Your task to perform on an android device: add a label to a message in the gmail app Image 0: 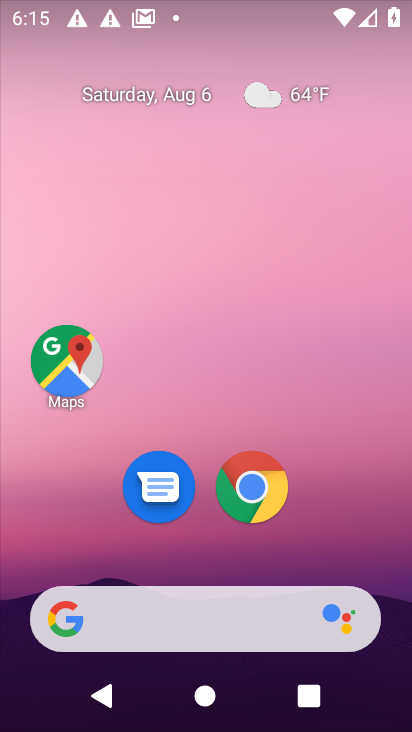
Step 0: drag from (210, 439) to (249, 0)
Your task to perform on an android device: add a label to a message in the gmail app Image 1: 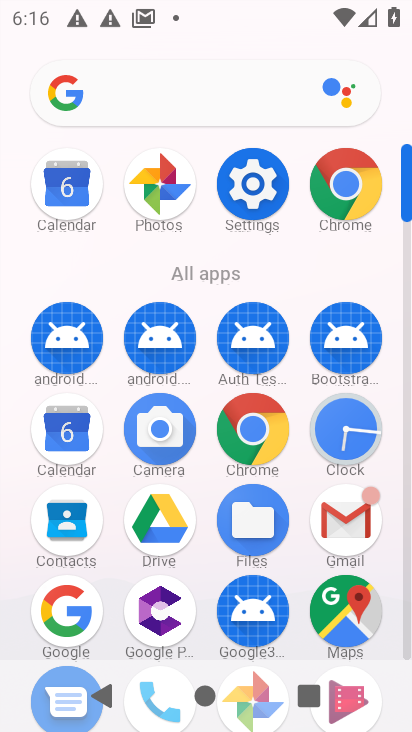
Step 1: click (343, 513)
Your task to perform on an android device: add a label to a message in the gmail app Image 2: 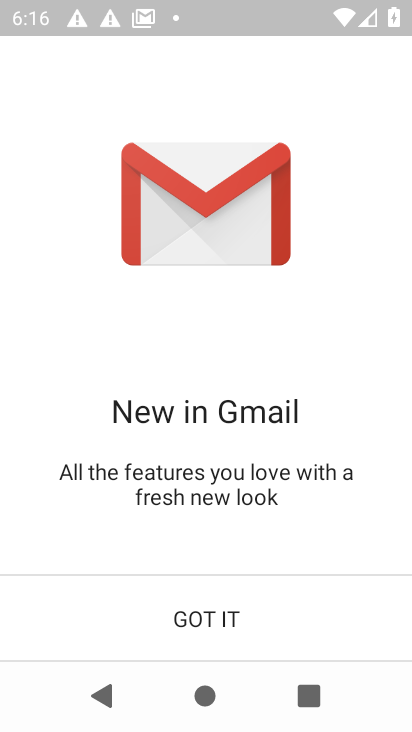
Step 2: click (156, 620)
Your task to perform on an android device: add a label to a message in the gmail app Image 3: 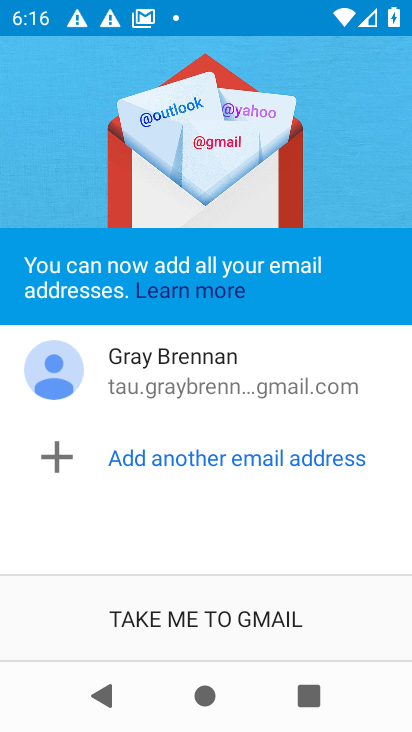
Step 3: click (207, 605)
Your task to perform on an android device: add a label to a message in the gmail app Image 4: 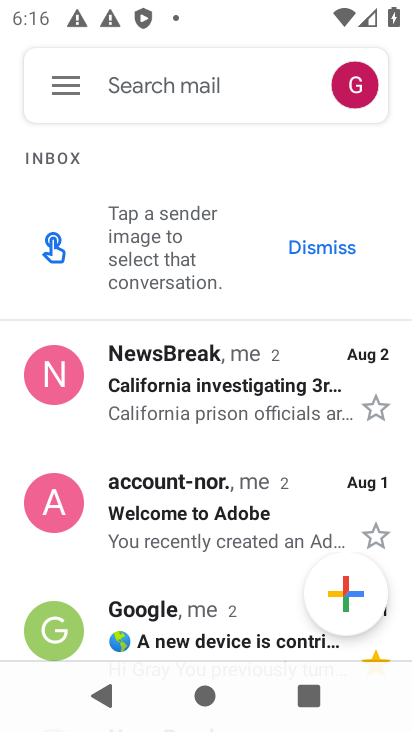
Step 4: click (217, 399)
Your task to perform on an android device: add a label to a message in the gmail app Image 5: 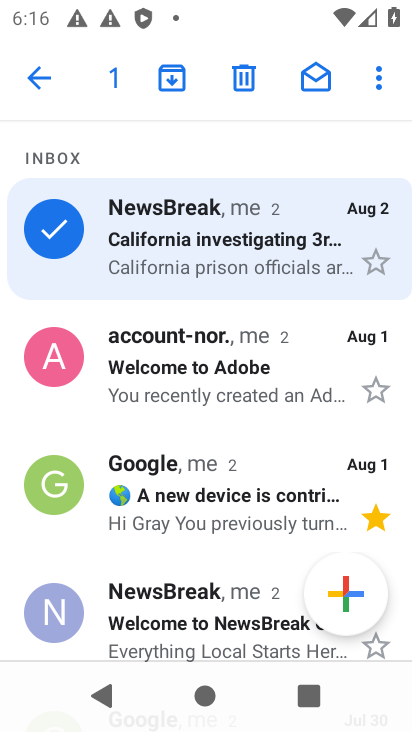
Step 5: click (376, 73)
Your task to perform on an android device: add a label to a message in the gmail app Image 6: 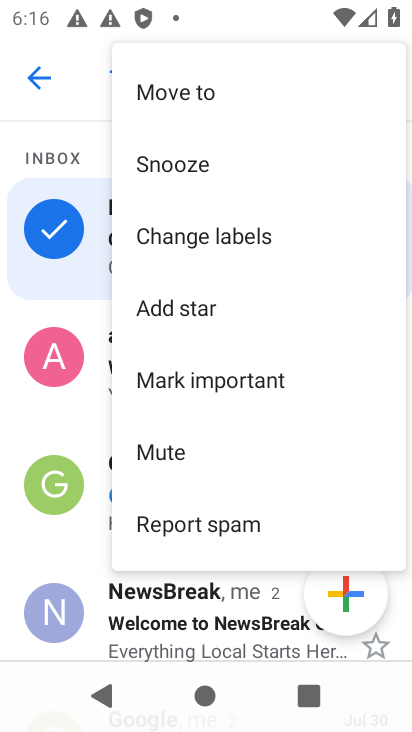
Step 6: click (242, 241)
Your task to perform on an android device: add a label to a message in the gmail app Image 7: 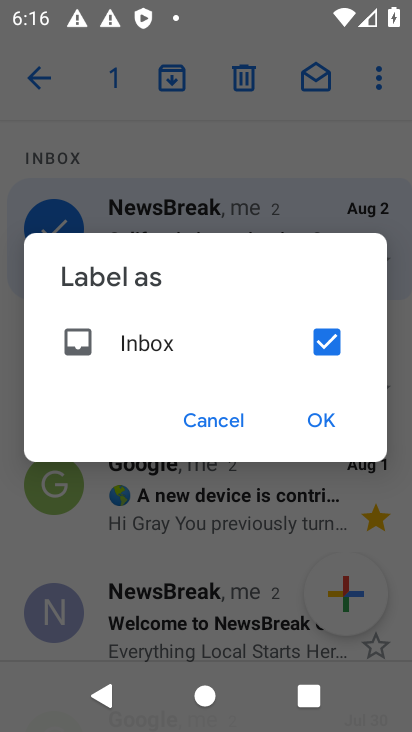
Step 7: click (309, 433)
Your task to perform on an android device: add a label to a message in the gmail app Image 8: 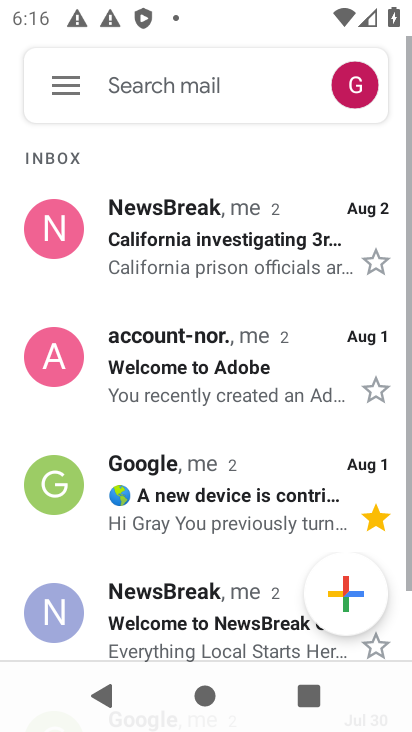
Step 8: task complete